Your task to perform on an android device: Open Google Image 0: 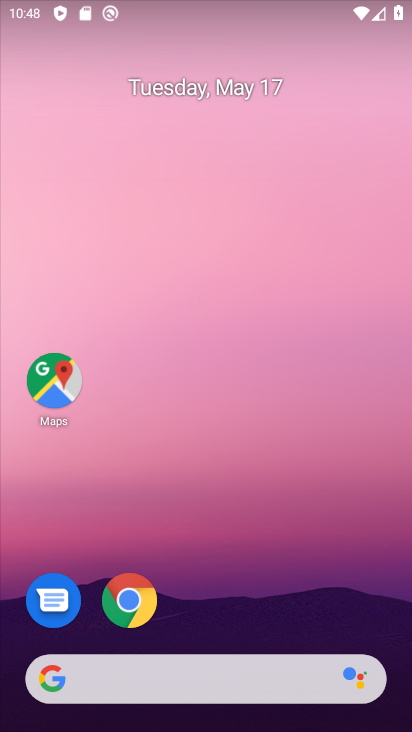
Step 0: drag from (123, 54) to (101, 27)
Your task to perform on an android device: Open Google Image 1: 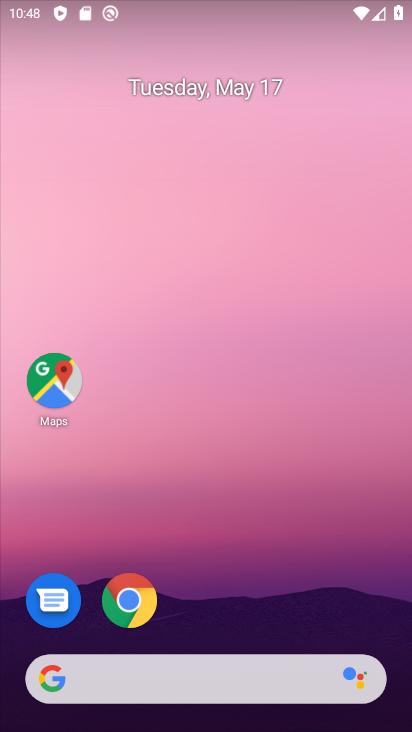
Step 1: drag from (175, 61) to (203, 26)
Your task to perform on an android device: Open Google Image 2: 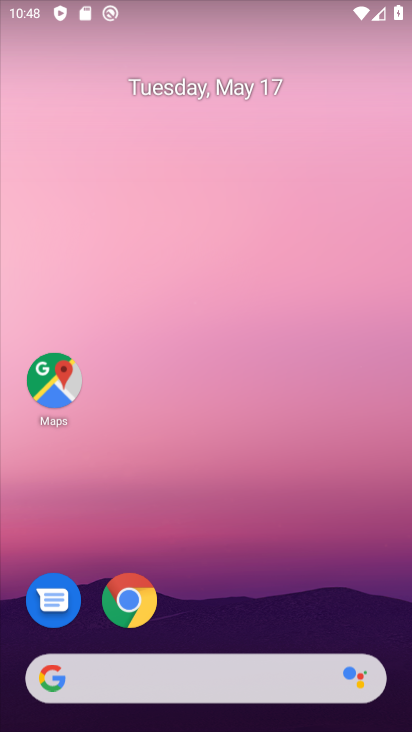
Step 2: drag from (197, 313) to (151, 2)
Your task to perform on an android device: Open Google Image 3: 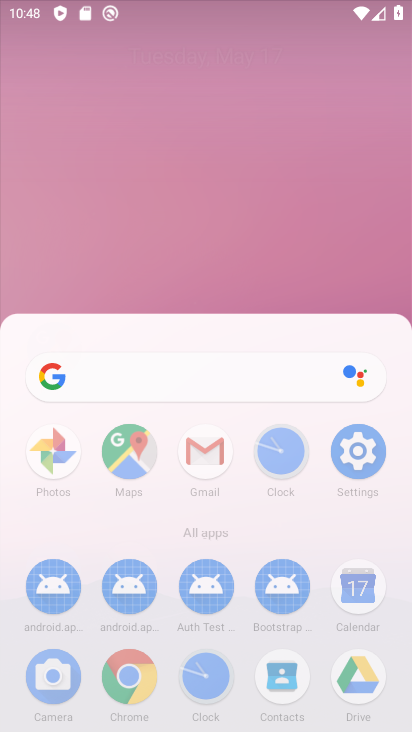
Step 3: drag from (231, 559) to (161, 7)
Your task to perform on an android device: Open Google Image 4: 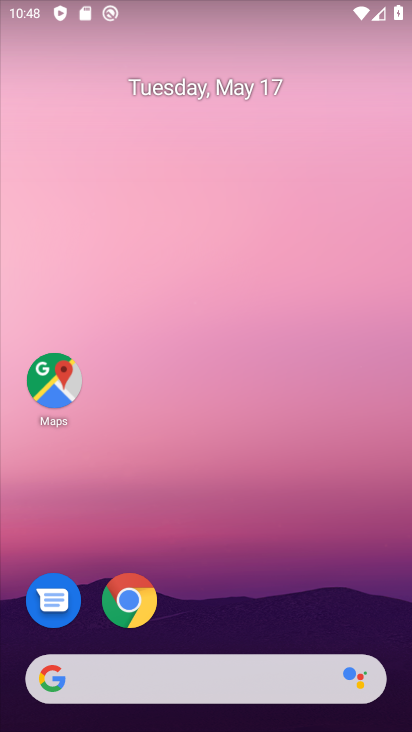
Step 4: drag from (230, 469) to (168, 3)
Your task to perform on an android device: Open Google Image 5: 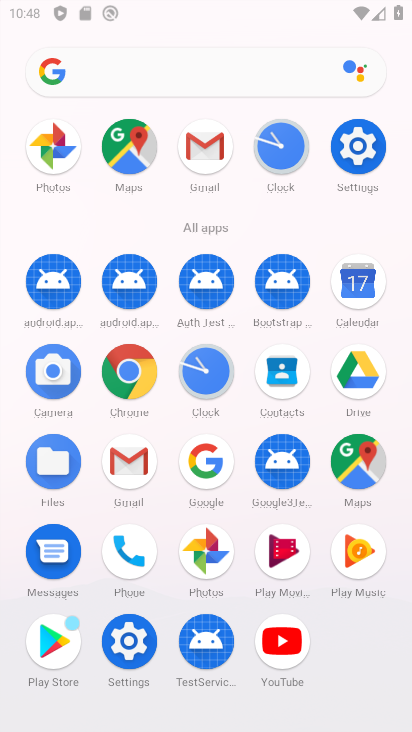
Step 5: drag from (170, 432) to (177, 8)
Your task to perform on an android device: Open Google Image 6: 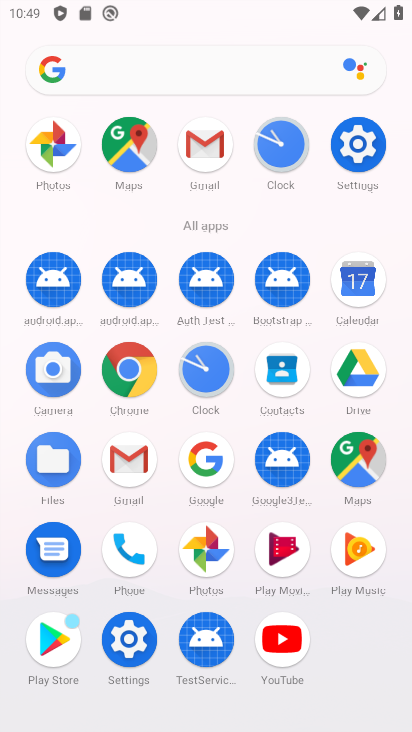
Step 6: click (206, 469)
Your task to perform on an android device: Open Google Image 7: 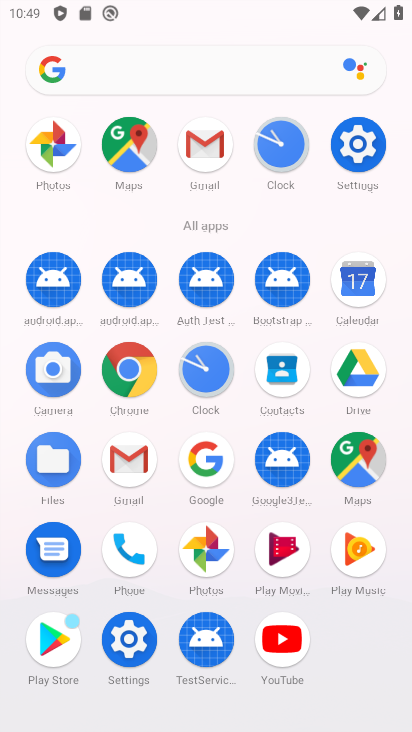
Step 7: click (206, 466)
Your task to perform on an android device: Open Google Image 8: 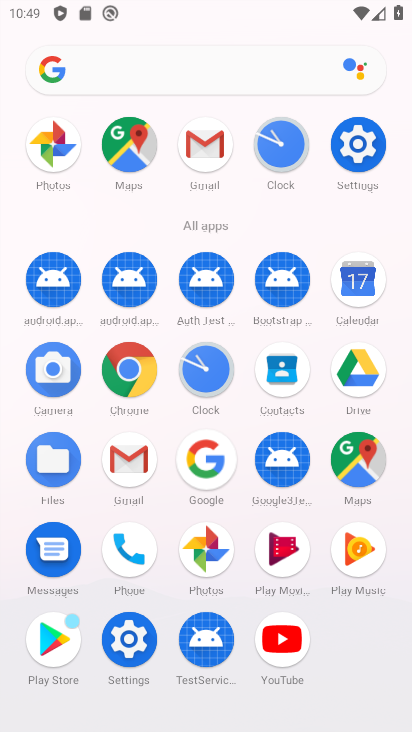
Step 8: click (204, 465)
Your task to perform on an android device: Open Google Image 9: 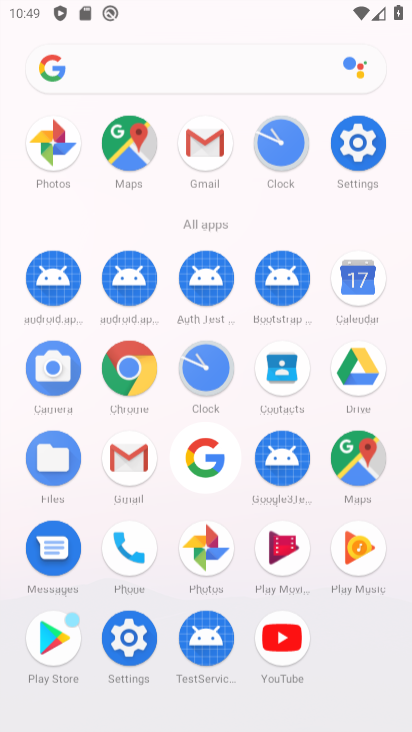
Step 9: click (199, 460)
Your task to perform on an android device: Open Google Image 10: 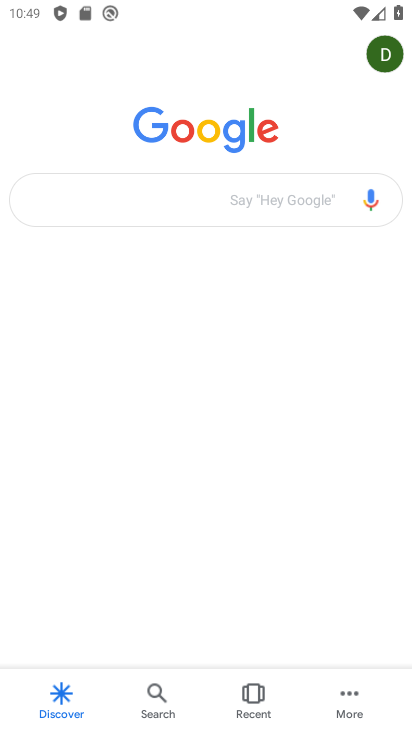
Step 10: click (205, 456)
Your task to perform on an android device: Open Google Image 11: 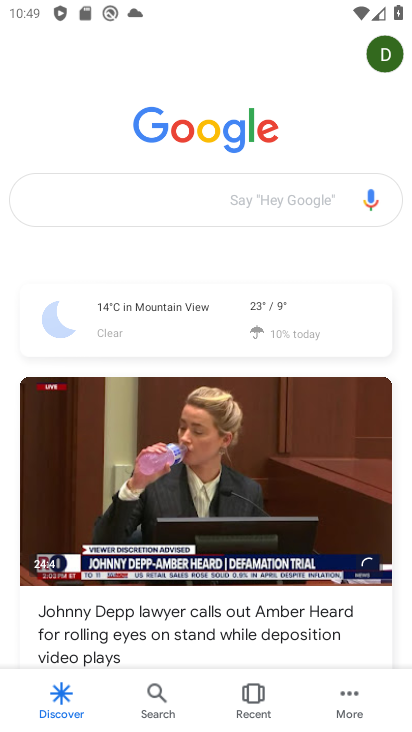
Step 11: task complete